Your task to perform on an android device: Go to battery settings Image 0: 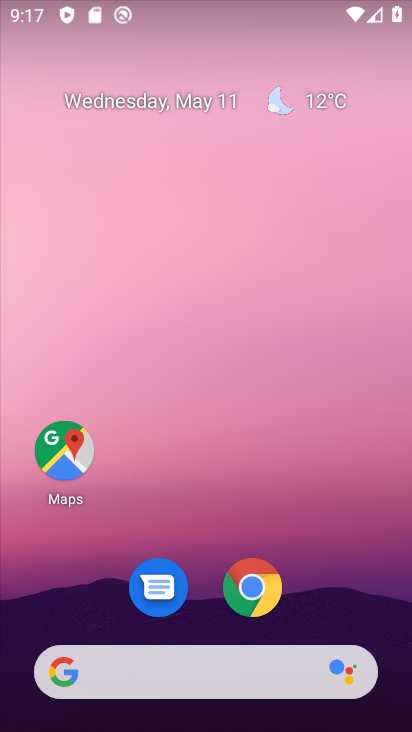
Step 0: drag from (350, 615) to (376, 0)
Your task to perform on an android device: Go to battery settings Image 1: 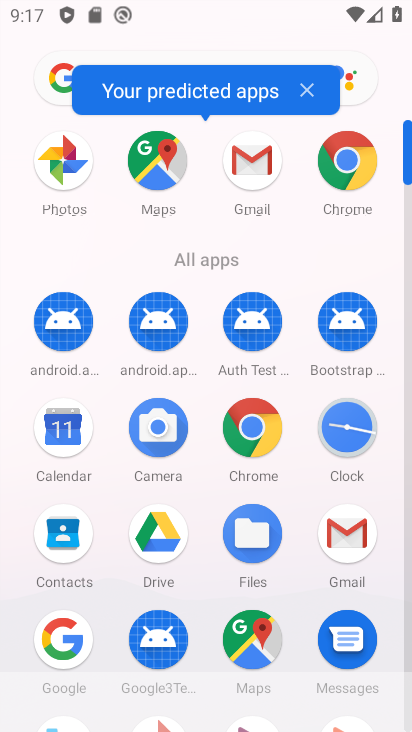
Step 1: click (407, 541)
Your task to perform on an android device: Go to battery settings Image 2: 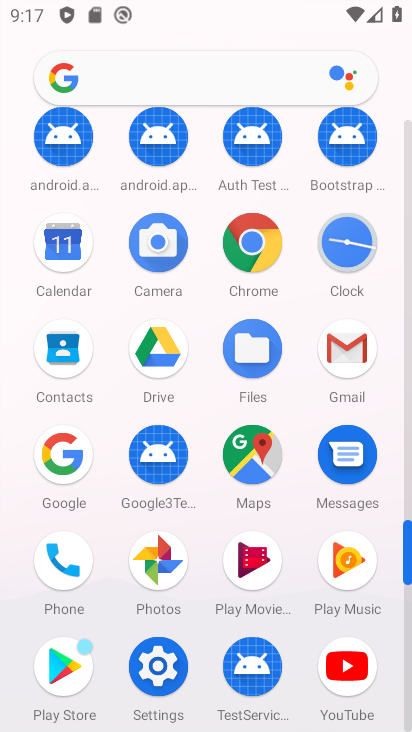
Step 2: click (160, 665)
Your task to perform on an android device: Go to battery settings Image 3: 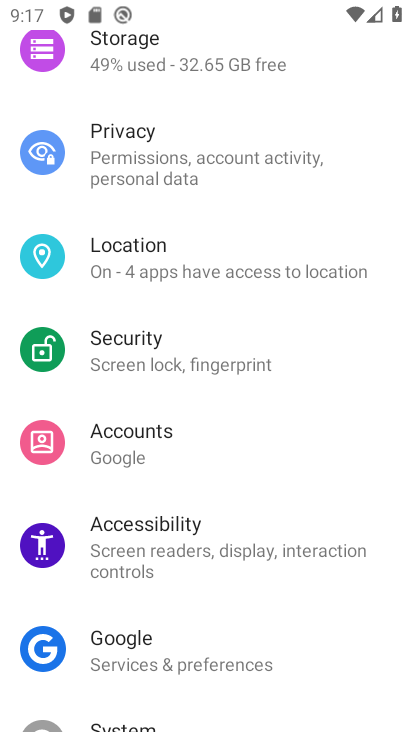
Step 3: drag from (305, 317) to (302, 623)
Your task to perform on an android device: Go to battery settings Image 4: 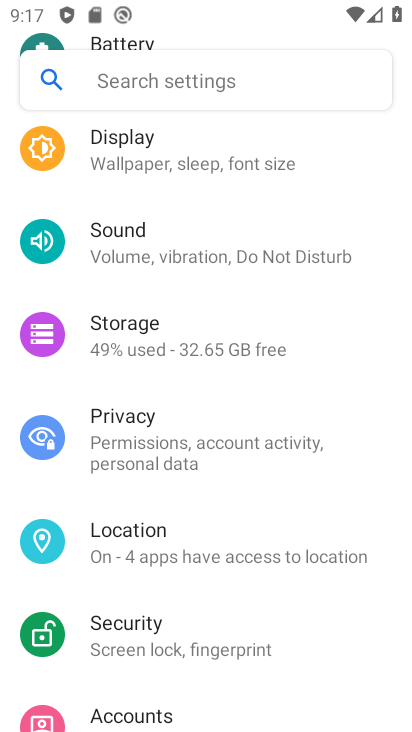
Step 4: drag from (258, 479) to (247, 620)
Your task to perform on an android device: Go to battery settings Image 5: 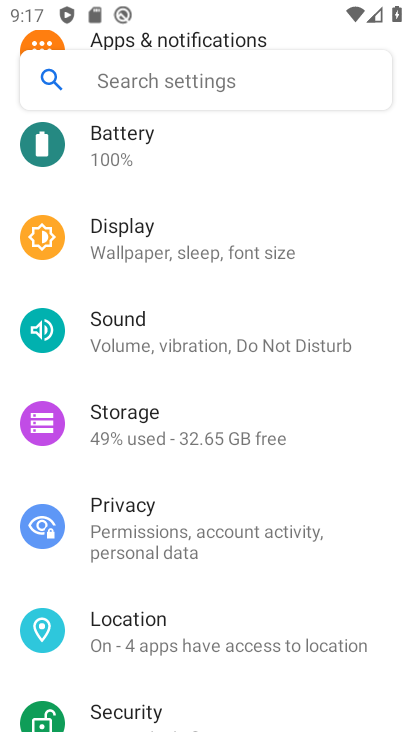
Step 5: click (109, 144)
Your task to perform on an android device: Go to battery settings Image 6: 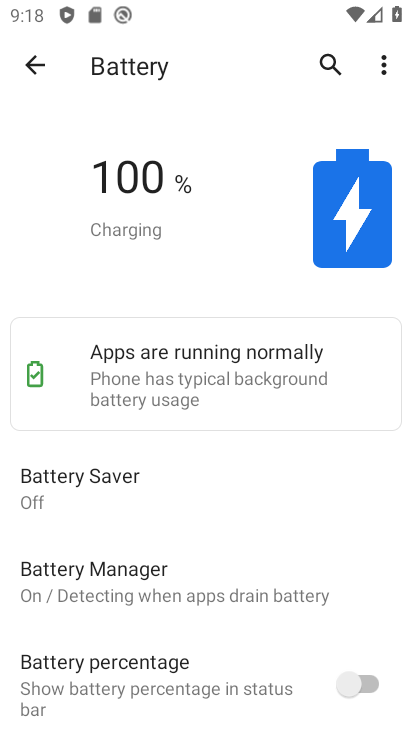
Step 6: task complete